Your task to perform on an android device: open app "VLC for Android" Image 0: 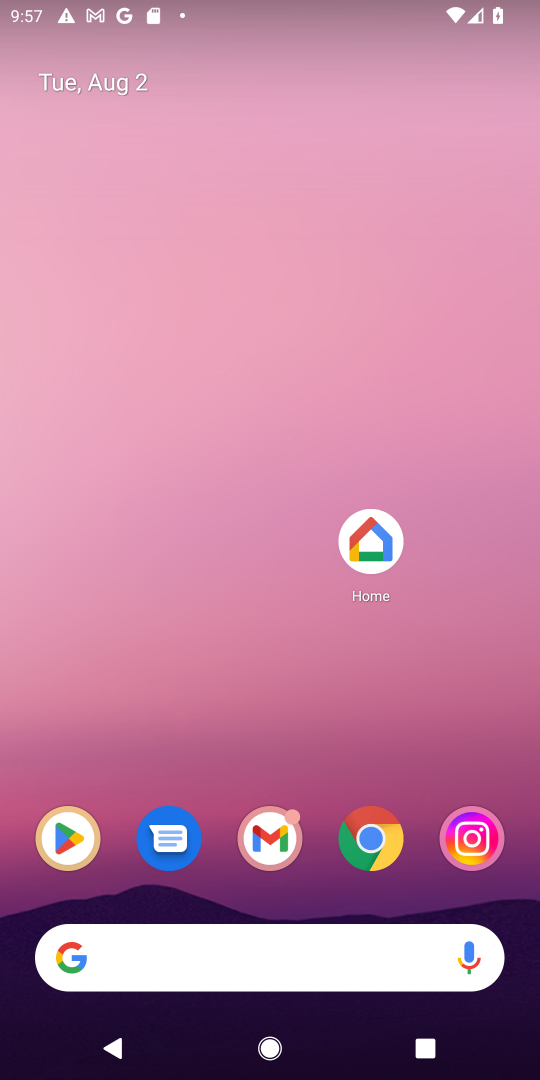
Step 0: press home button
Your task to perform on an android device: open app "VLC for Android" Image 1: 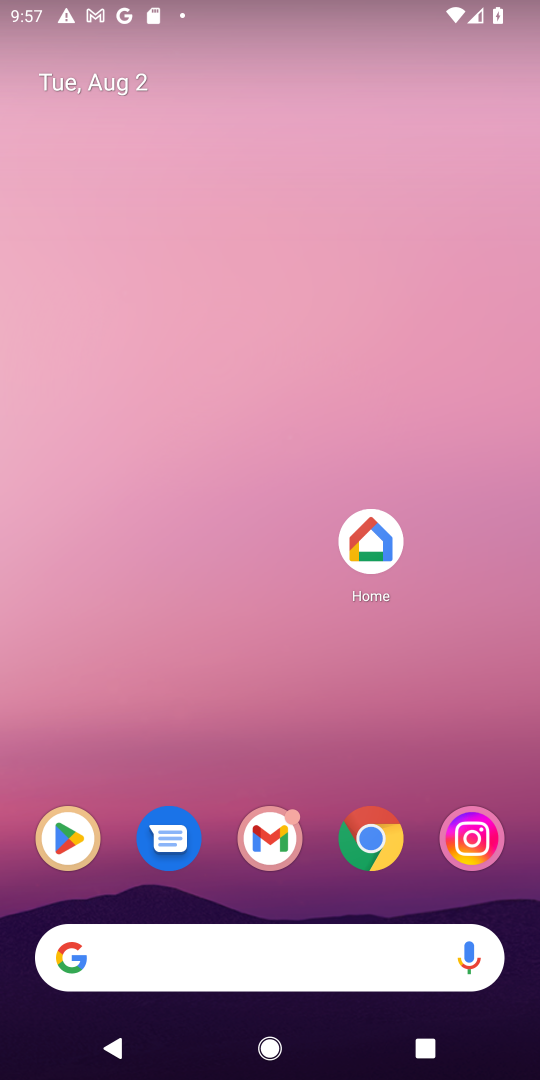
Step 1: drag from (229, 493) to (254, 83)
Your task to perform on an android device: open app "VLC for Android" Image 2: 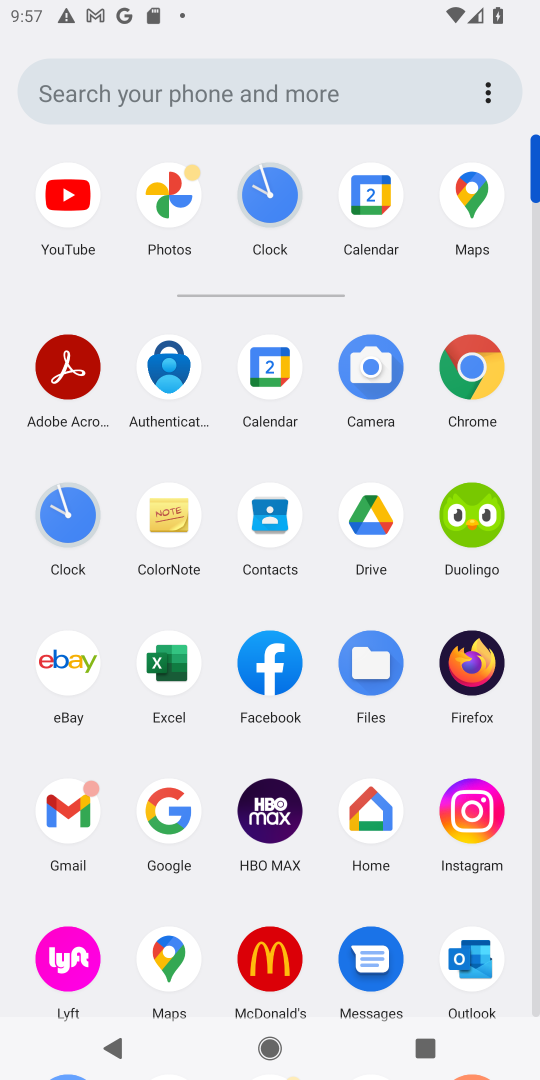
Step 2: drag from (409, 900) to (412, 470)
Your task to perform on an android device: open app "VLC for Android" Image 3: 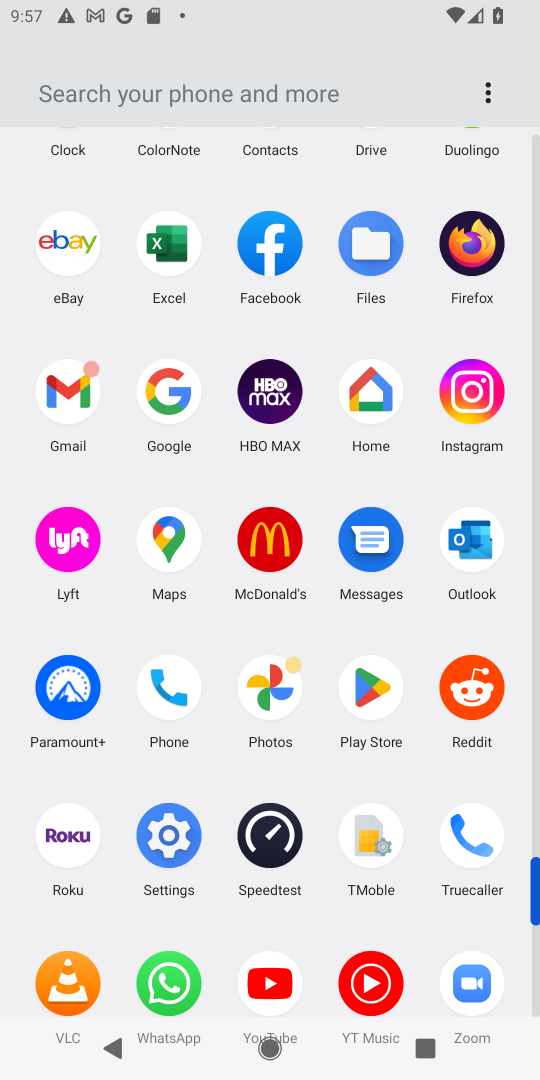
Step 3: click (373, 700)
Your task to perform on an android device: open app "VLC for Android" Image 4: 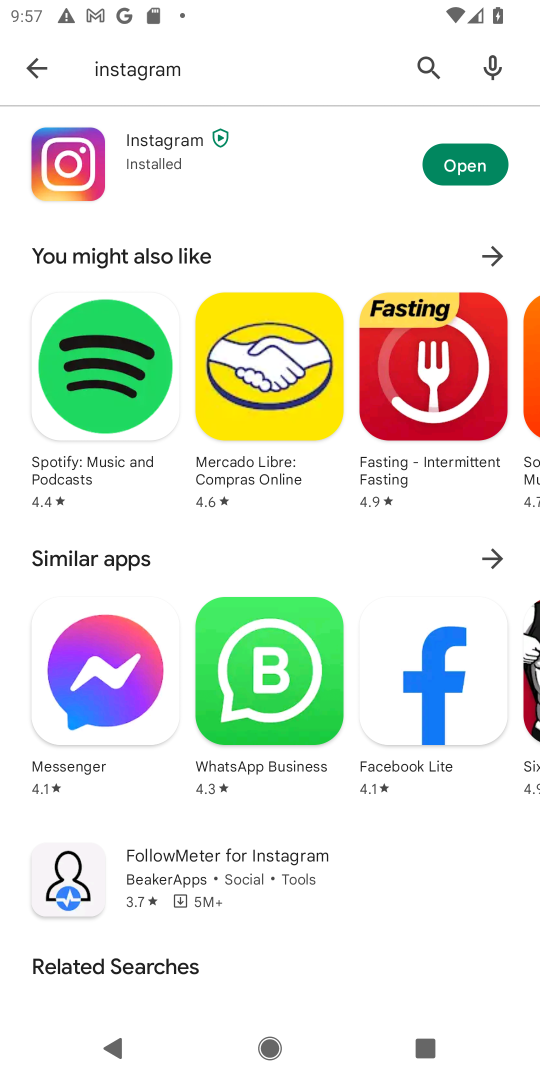
Step 4: click (421, 61)
Your task to perform on an android device: open app "VLC for Android" Image 5: 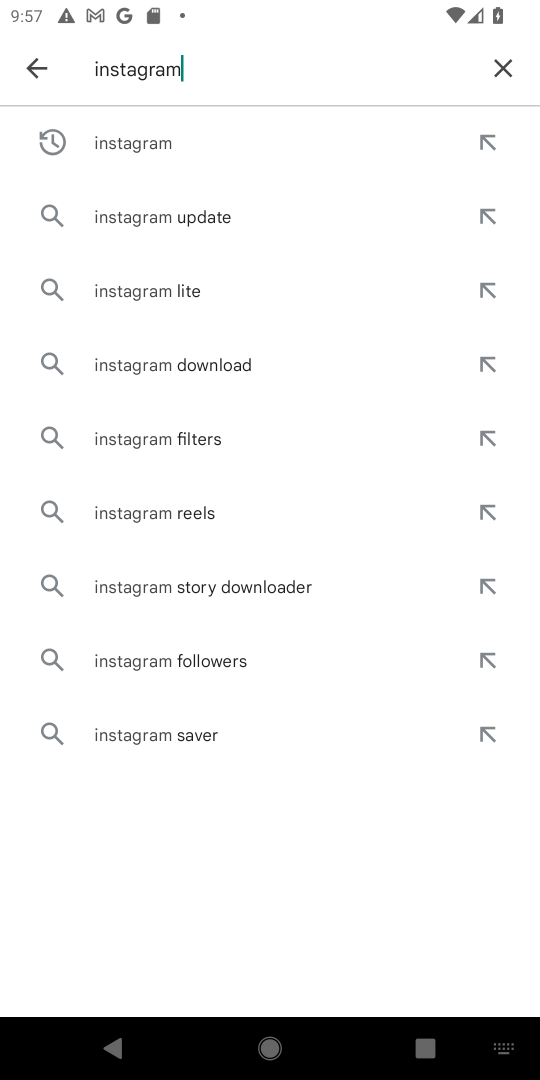
Step 5: click (498, 60)
Your task to perform on an android device: open app "VLC for Android" Image 6: 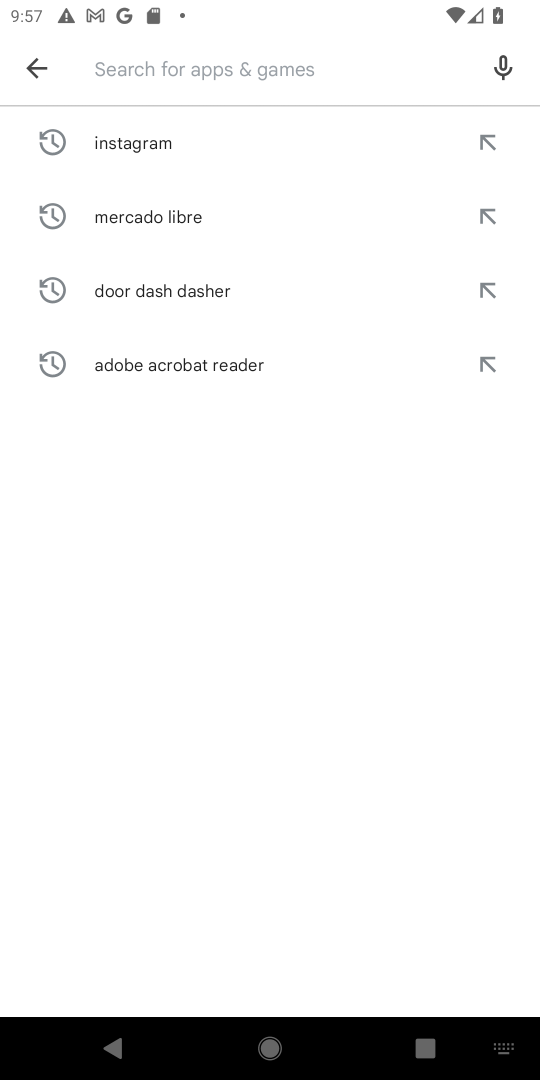
Step 6: click (417, 74)
Your task to perform on an android device: open app "VLC for Android" Image 7: 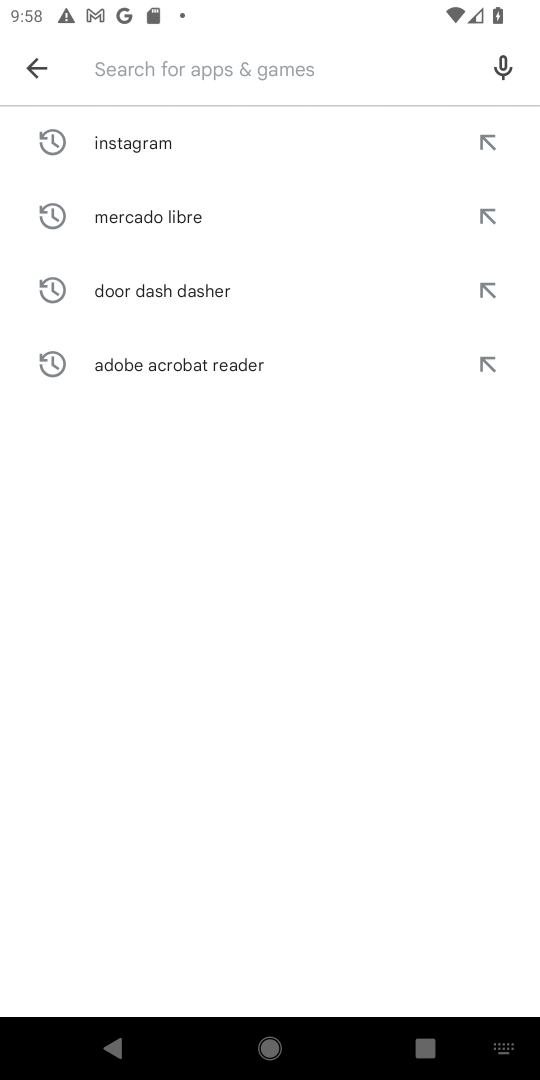
Step 7: type "vlc  for android "
Your task to perform on an android device: open app "VLC for Android" Image 8: 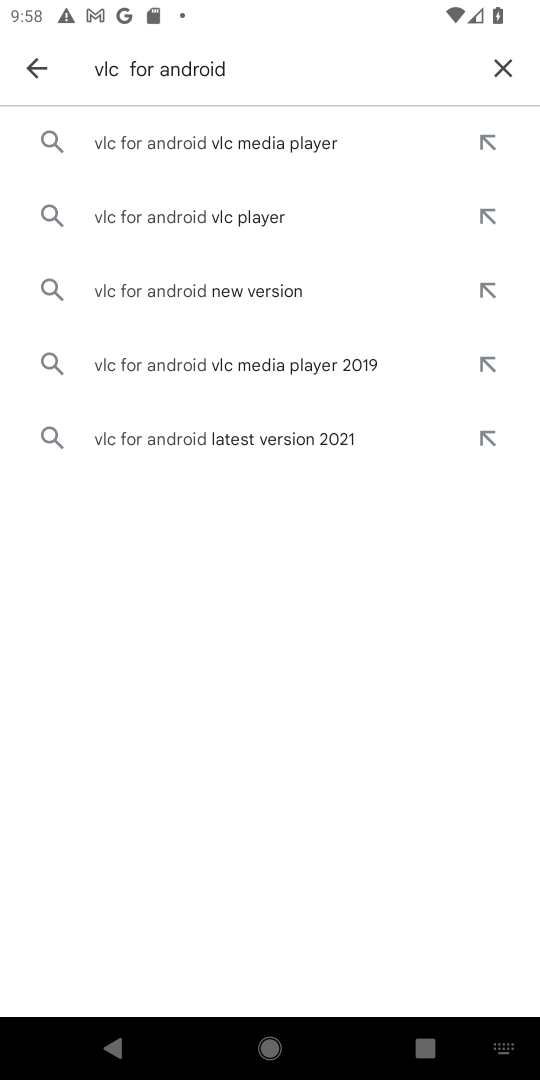
Step 8: click (309, 145)
Your task to perform on an android device: open app "VLC for Android" Image 9: 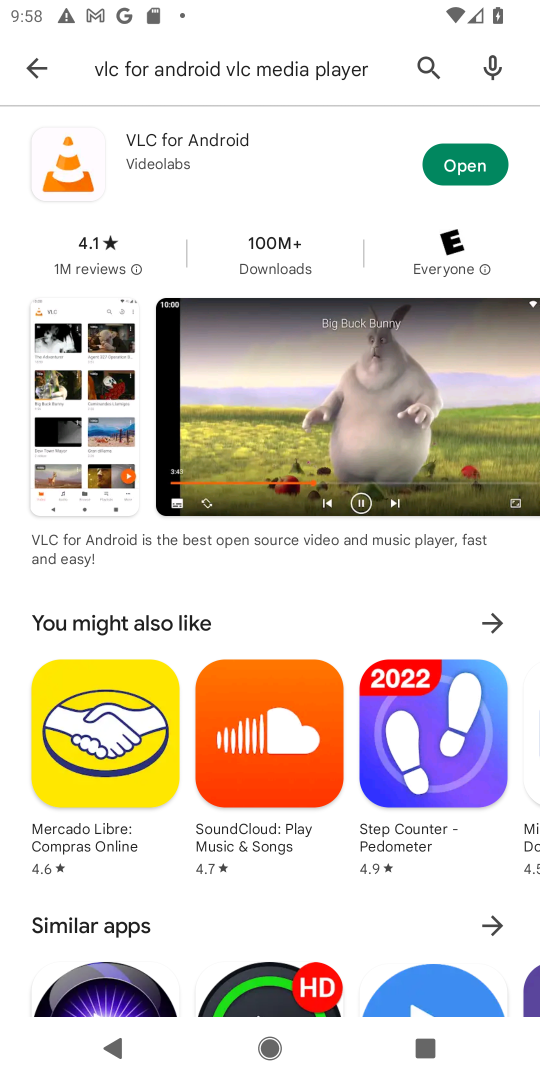
Step 9: click (477, 170)
Your task to perform on an android device: open app "VLC for Android" Image 10: 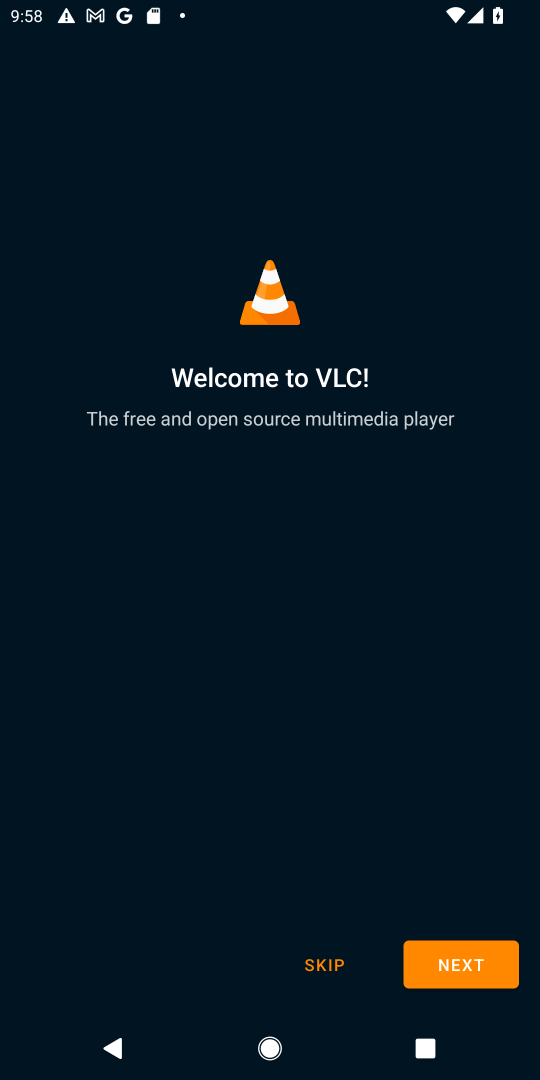
Step 10: task complete